Your task to perform on an android device: Toggle the flashlight Image 0: 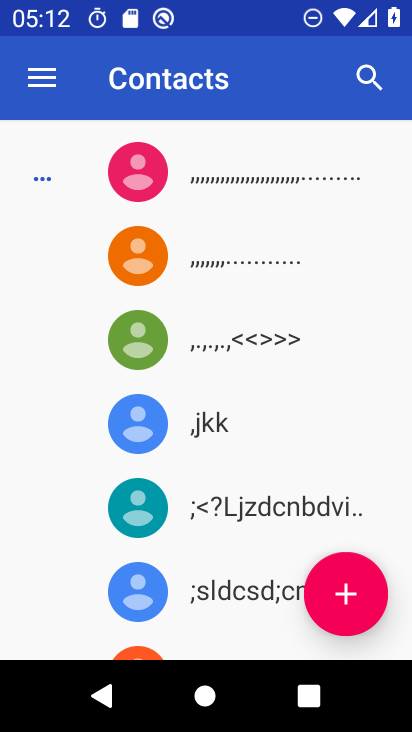
Step 0: press home button
Your task to perform on an android device: Toggle the flashlight Image 1: 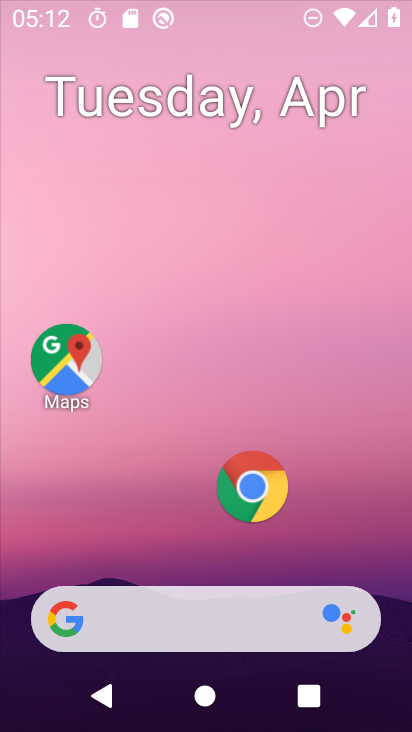
Step 1: drag from (152, 485) to (274, 2)
Your task to perform on an android device: Toggle the flashlight Image 2: 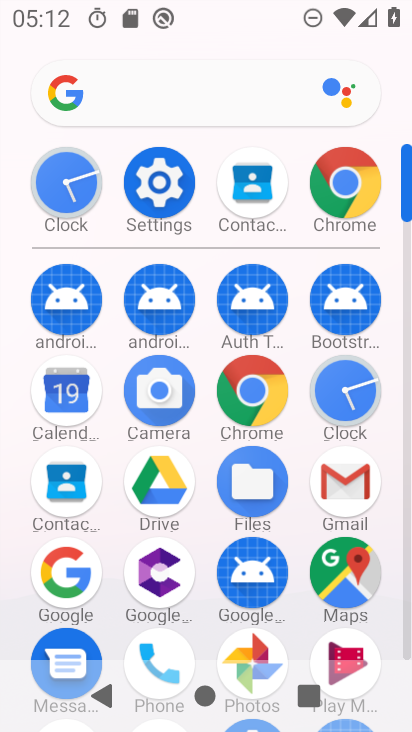
Step 2: click (153, 188)
Your task to perform on an android device: Toggle the flashlight Image 3: 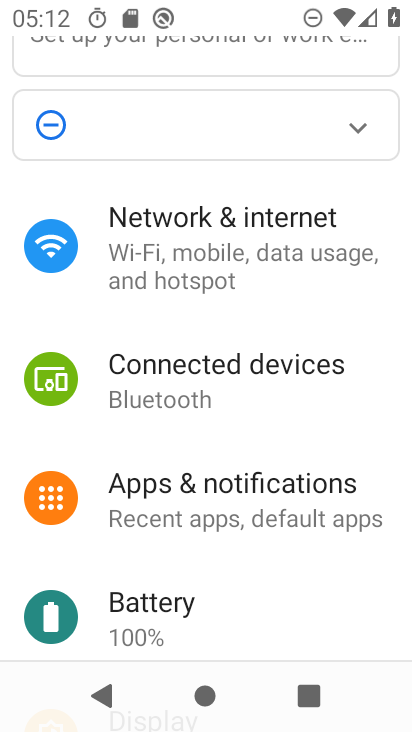
Step 3: drag from (225, 264) to (144, 704)
Your task to perform on an android device: Toggle the flashlight Image 4: 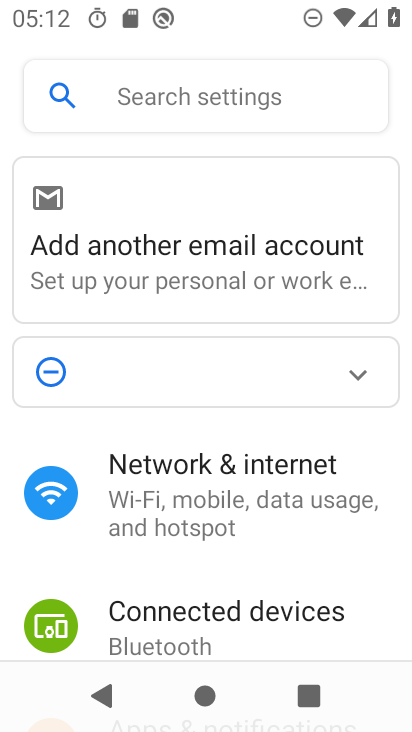
Step 4: click (132, 101)
Your task to perform on an android device: Toggle the flashlight Image 5: 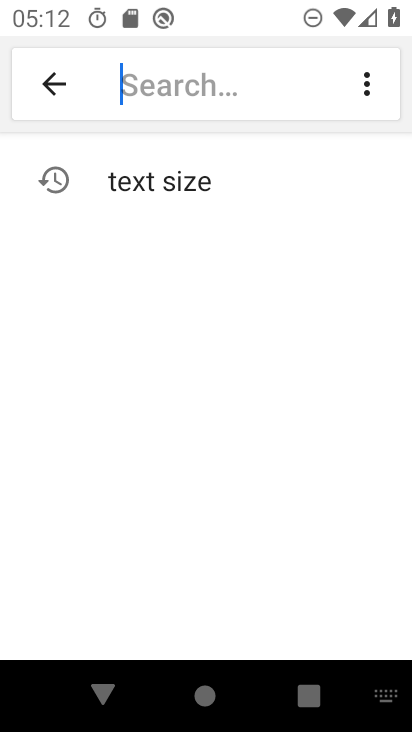
Step 5: type "flashlight"
Your task to perform on an android device: Toggle the flashlight Image 6: 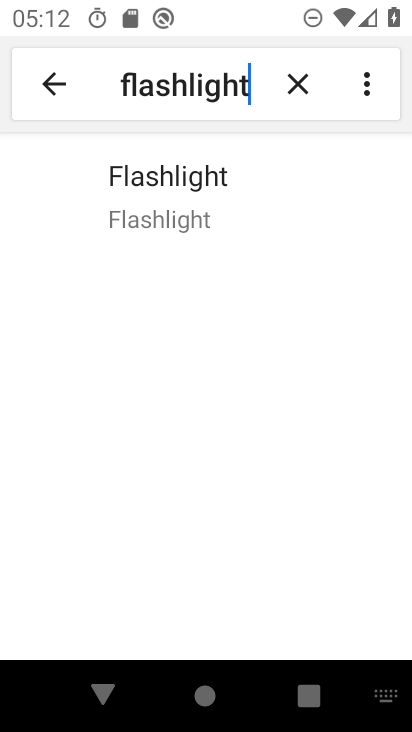
Step 6: click (182, 180)
Your task to perform on an android device: Toggle the flashlight Image 7: 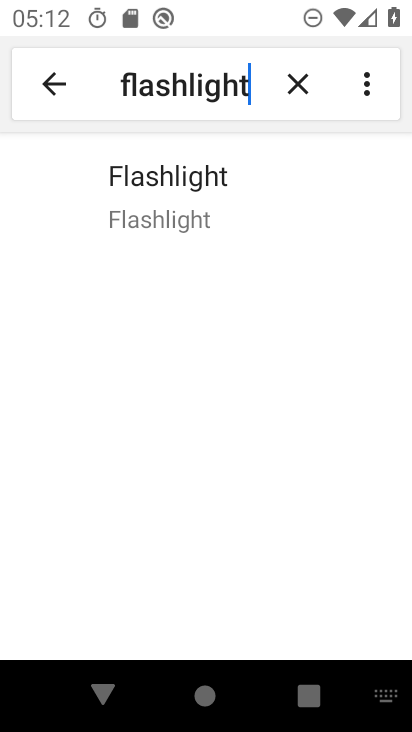
Step 7: task complete